Your task to perform on an android device: Go to network settings Image 0: 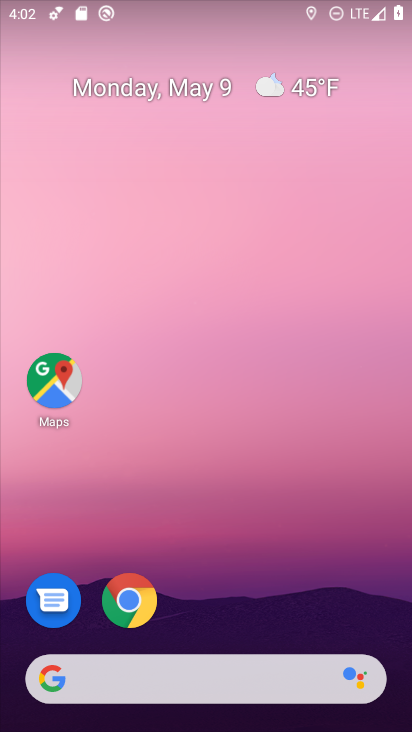
Step 0: drag from (198, 607) to (292, 11)
Your task to perform on an android device: Go to network settings Image 1: 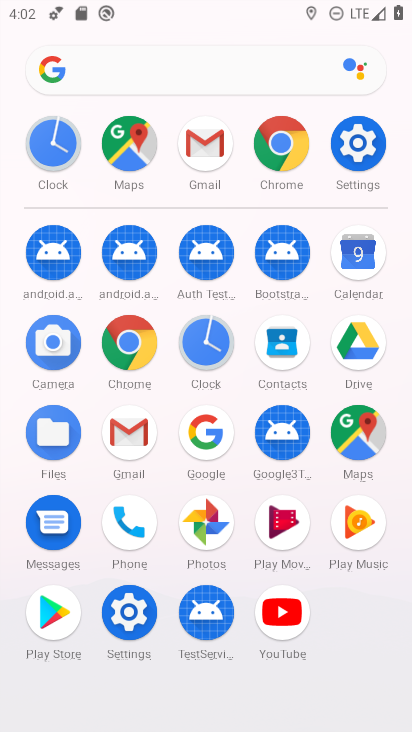
Step 1: click (138, 612)
Your task to perform on an android device: Go to network settings Image 2: 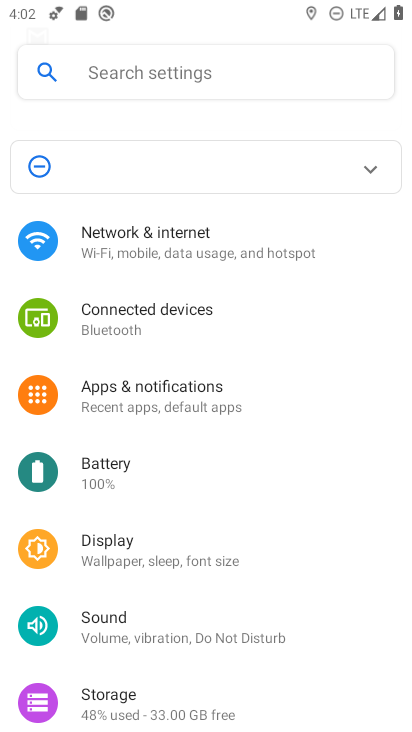
Step 2: click (135, 608)
Your task to perform on an android device: Go to network settings Image 3: 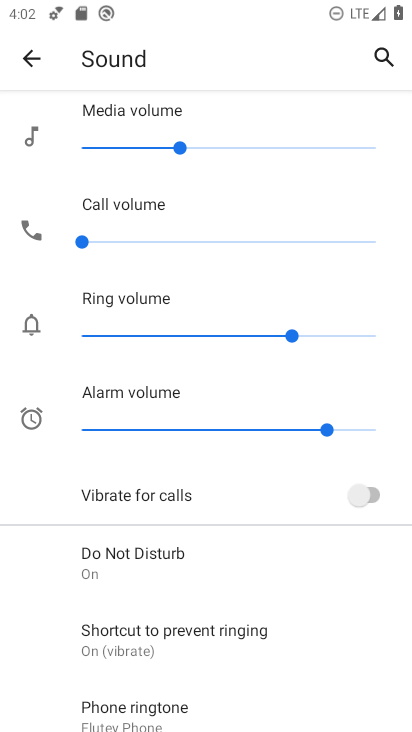
Step 3: click (190, 253)
Your task to perform on an android device: Go to network settings Image 4: 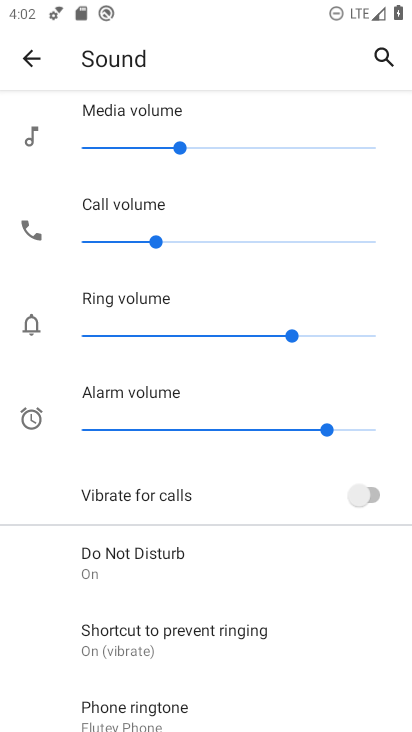
Step 4: click (35, 56)
Your task to perform on an android device: Go to network settings Image 5: 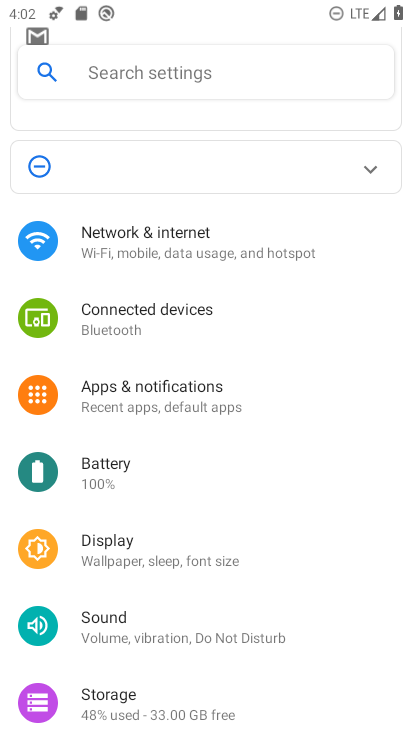
Step 5: press back button
Your task to perform on an android device: Go to network settings Image 6: 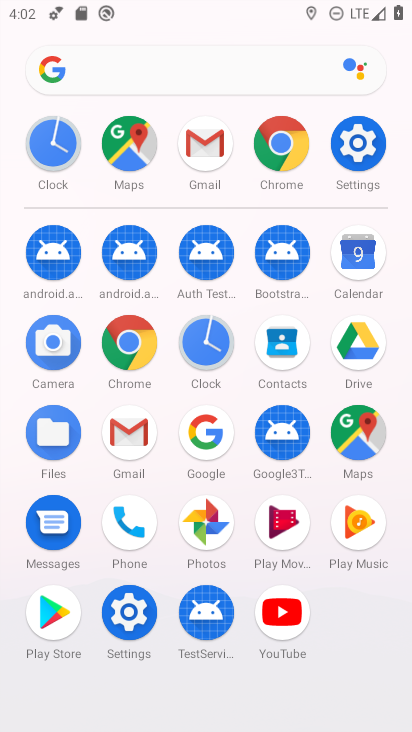
Step 6: click (375, 171)
Your task to perform on an android device: Go to network settings Image 7: 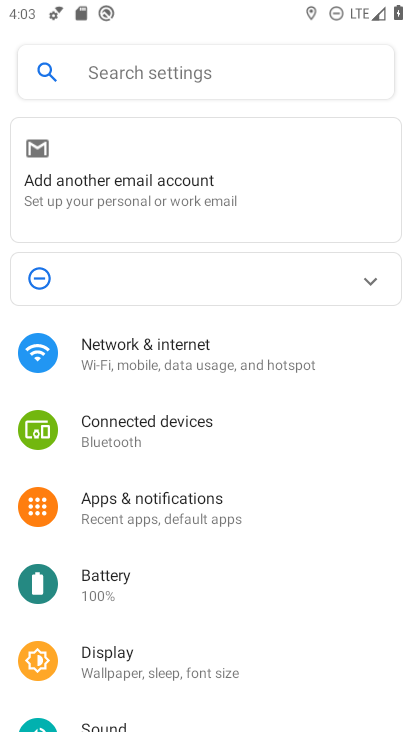
Step 7: click (151, 360)
Your task to perform on an android device: Go to network settings Image 8: 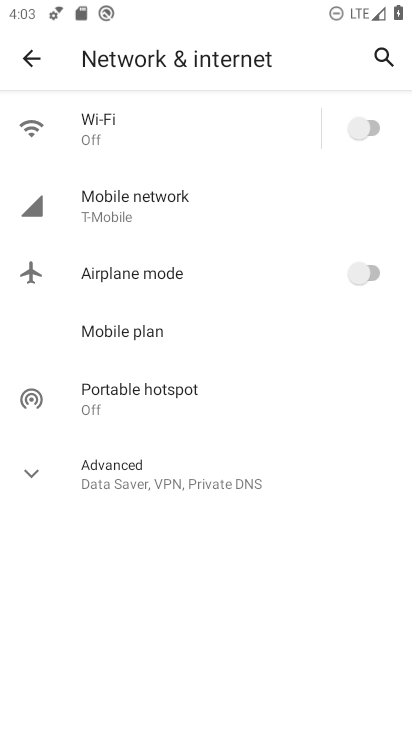
Step 8: task complete